Your task to perform on an android device: Check the news Image 0: 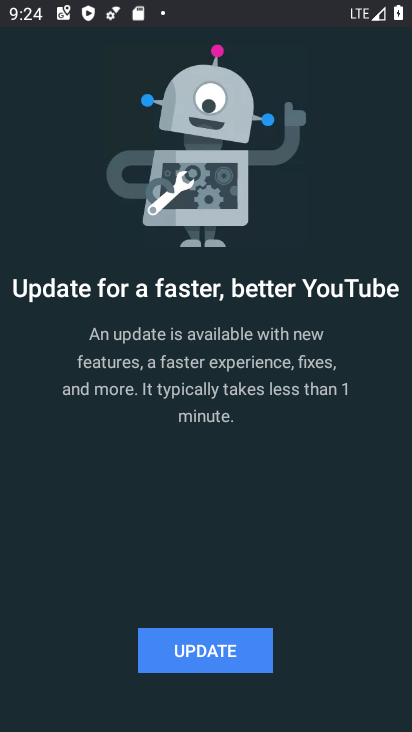
Step 0: press home button
Your task to perform on an android device: Check the news Image 1: 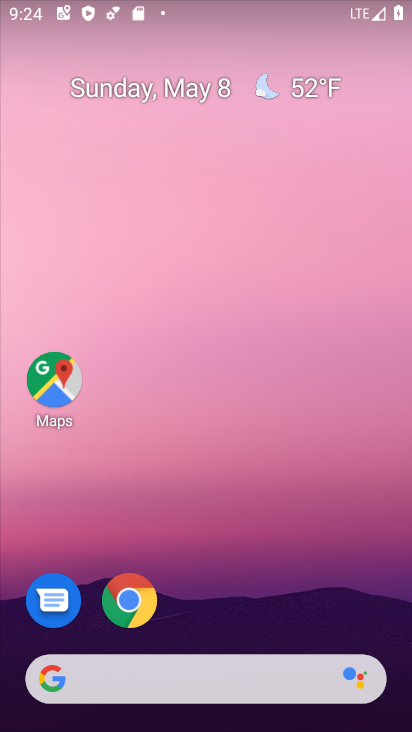
Step 1: task complete